Your task to perform on an android device: Open CNN.com Image 0: 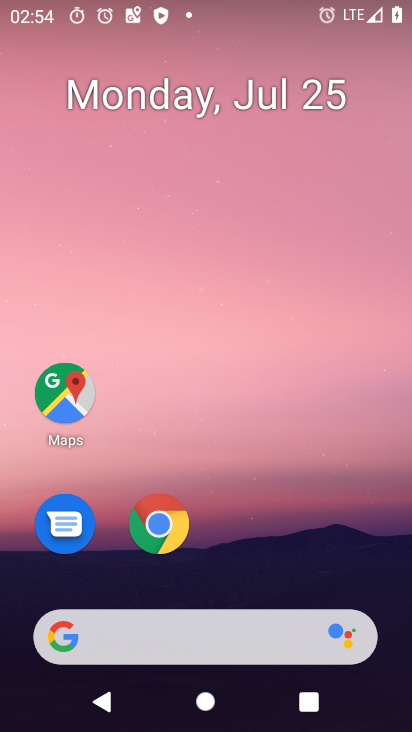
Step 0: click (62, 634)
Your task to perform on an android device: Open CNN.com Image 1: 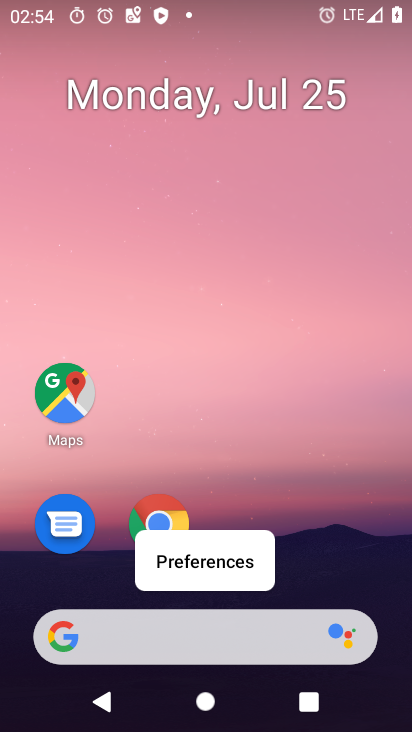
Step 1: click (62, 634)
Your task to perform on an android device: Open CNN.com Image 2: 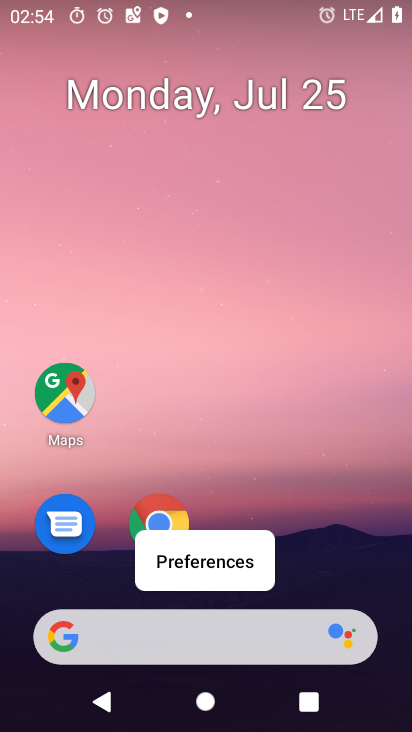
Step 2: click (62, 634)
Your task to perform on an android device: Open CNN.com Image 3: 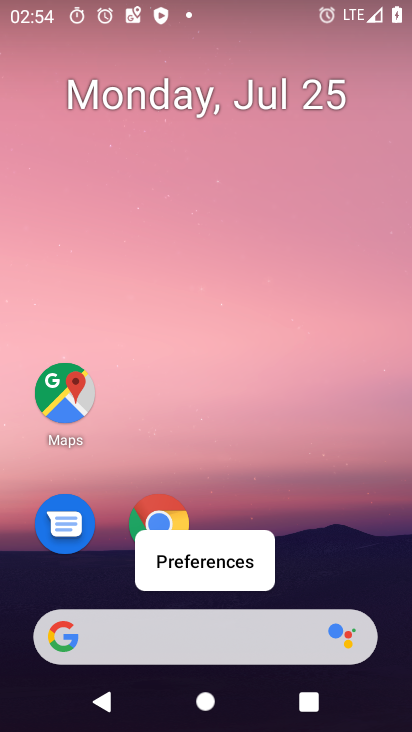
Step 3: click (60, 633)
Your task to perform on an android device: Open CNN.com Image 4: 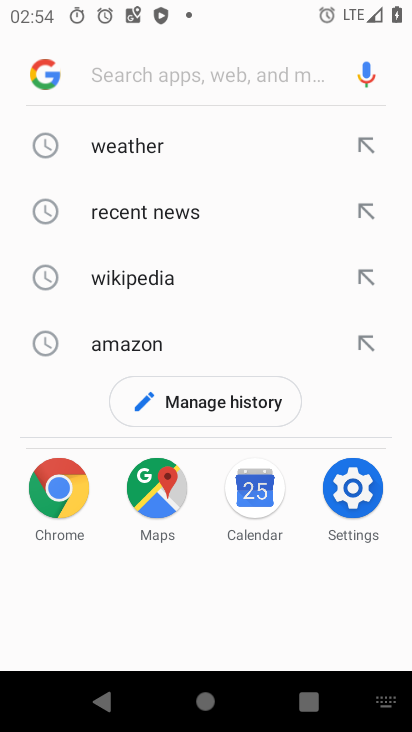
Step 4: type "CNN.com"
Your task to perform on an android device: Open CNN.com Image 5: 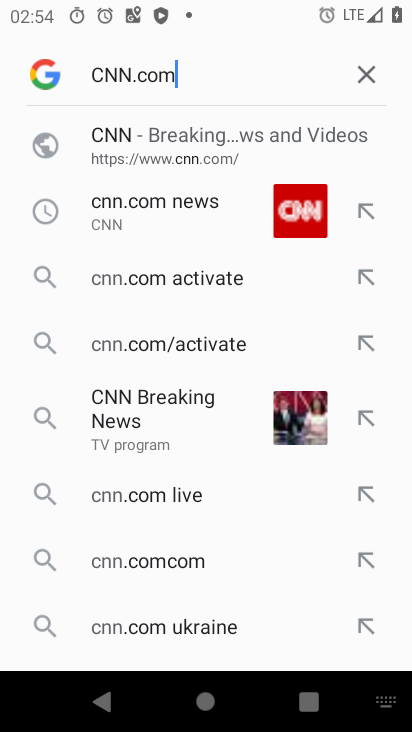
Step 5: press enter
Your task to perform on an android device: Open CNN.com Image 6: 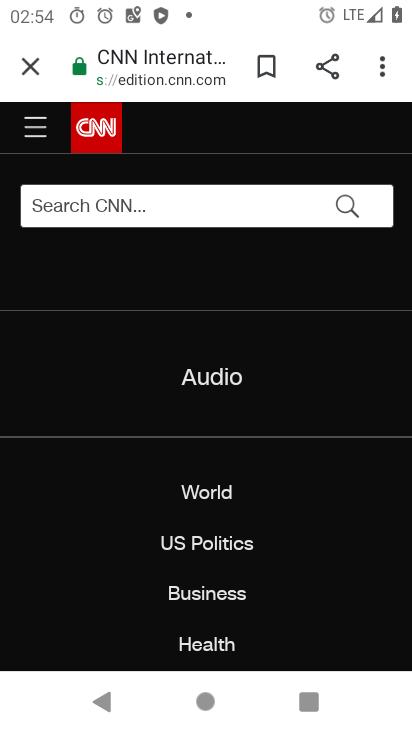
Step 6: task complete